Your task to perform on an android device: Open the map Image 0: 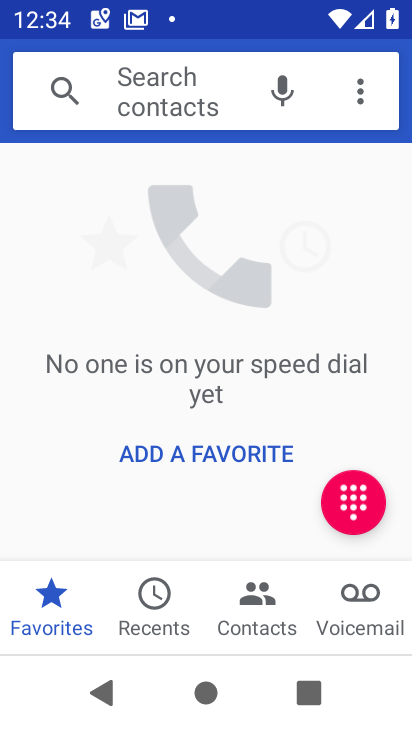
Step 0: press home button
Your task to perform on an android device: Open the map Image 1: 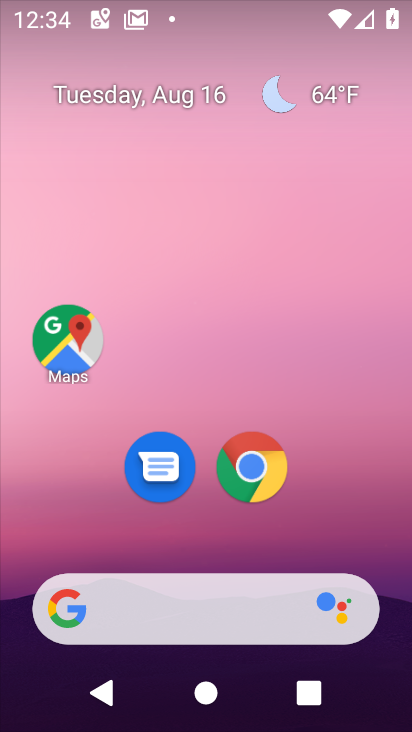
Step 1: drag from (386, 559) to (369, 134)
Your task to perform on an android device: Open the map Image 2: 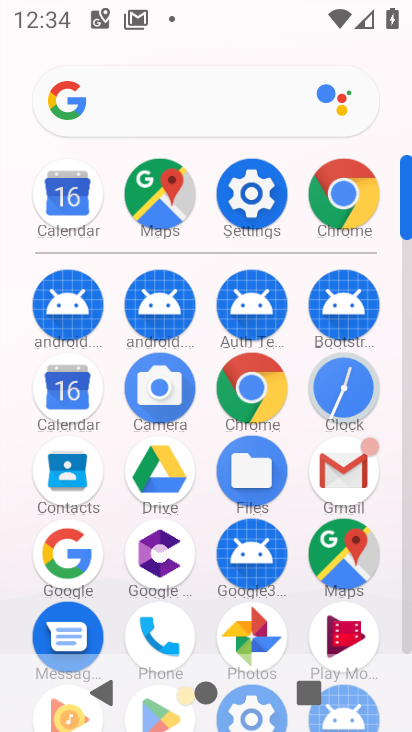
Step 2: click (335, 559)
Your task to perform on an android device: Open the map Image 3: 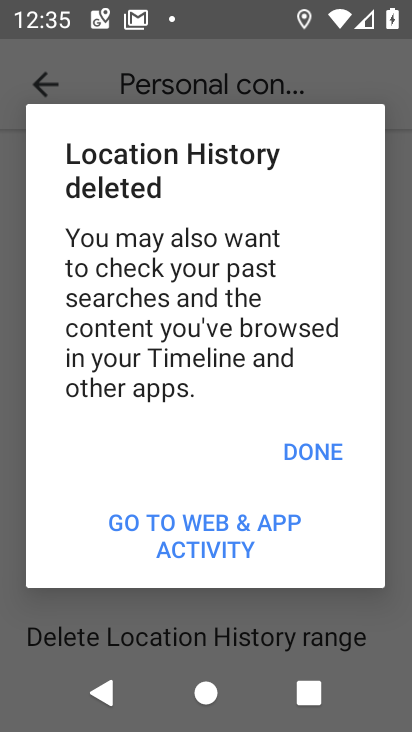
Step 3: task complete